Your task to perform on an android device: What is the news today? Image 0: 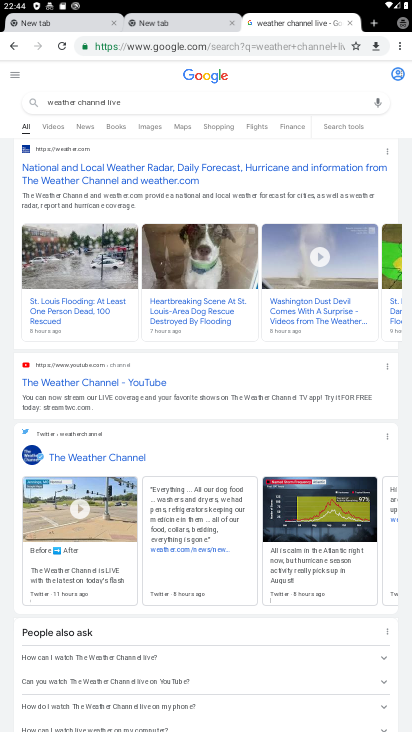
Step 0: drag from (182, 281) to (182, 47)
Your task to perform on an android device: What is the news today? Image 1: 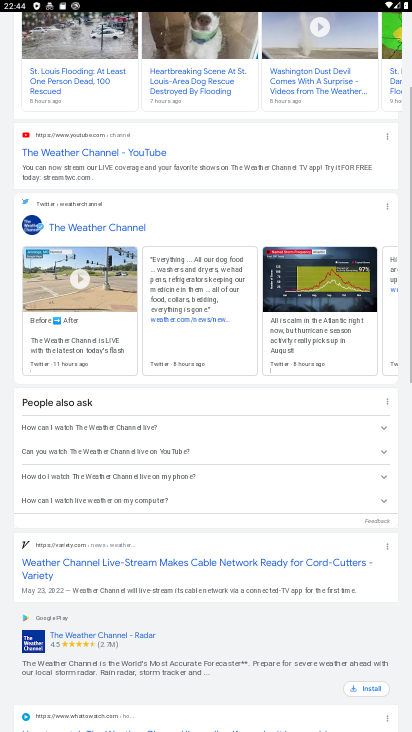
Step 1: drag from (200, 278) to (155, 134)
Your task to perform on an android device: What is the news today? Image 2: 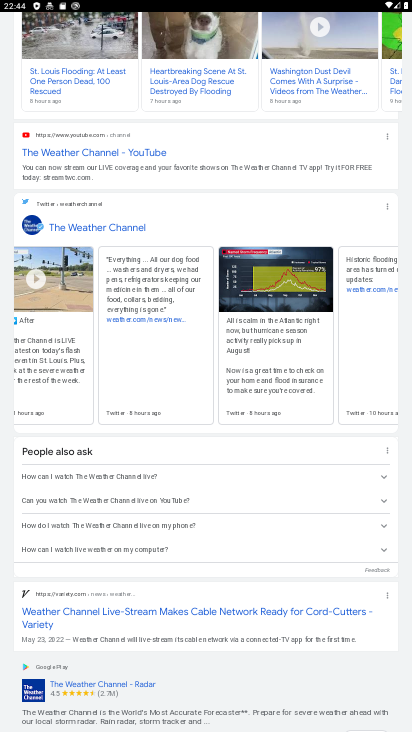
Step 2: drag from (151, 400) to (193, 50)
Your task to perform on an android device: What is the news today? Image 3: 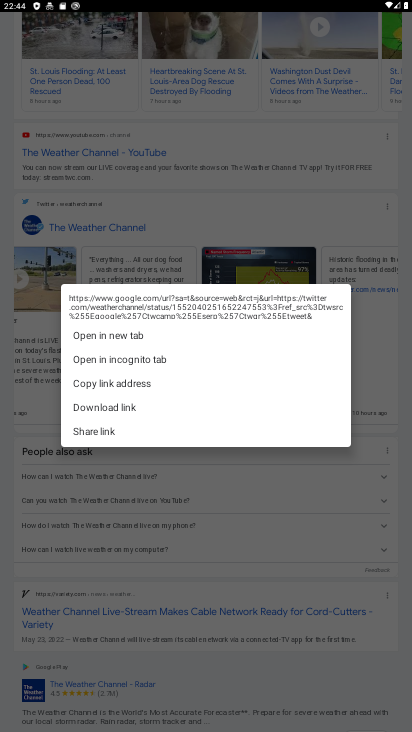
Step 3: click (109, 229)
Your task to perform on an android device: What is the news today? Image 4: 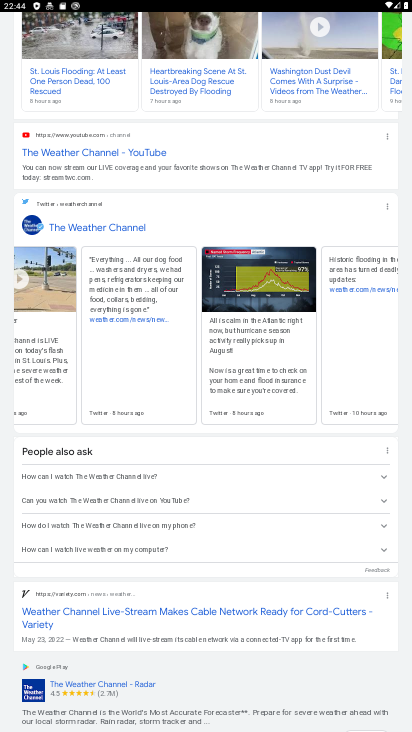
Step 4: task complete